Your task to perform on an android device: change your default location settings in chrome Image 0: 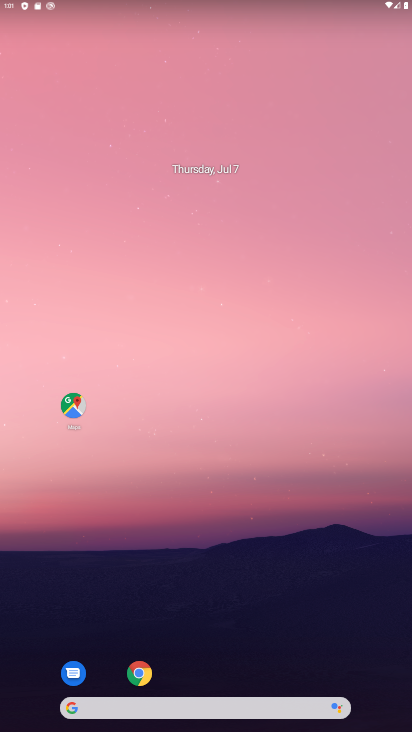
Step 0: drag from (253, 613) to (222, 39)
Your task to perform on an android device: change your default location settings in chrome Image 1: 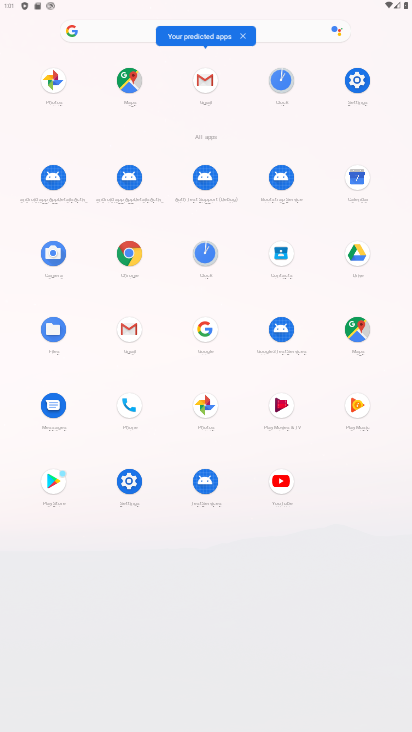
Step 1: click (131, 252)
Your task to perform on an android device: change your default location settings in chrome Image 2: 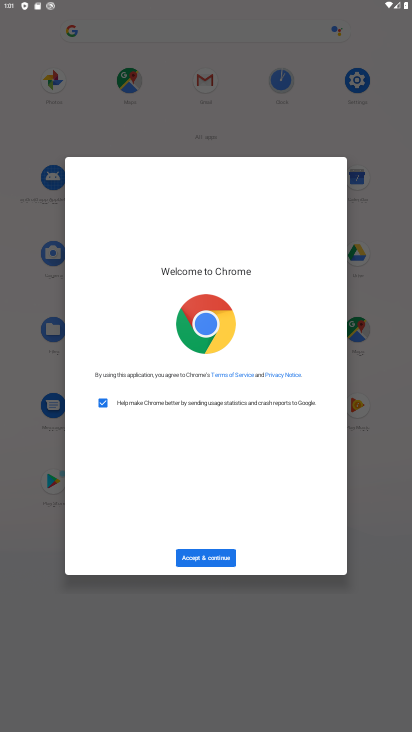
Step 2: click (221, 556)
Your task to perform on an android device: change your default location settings in chrome Image 3: 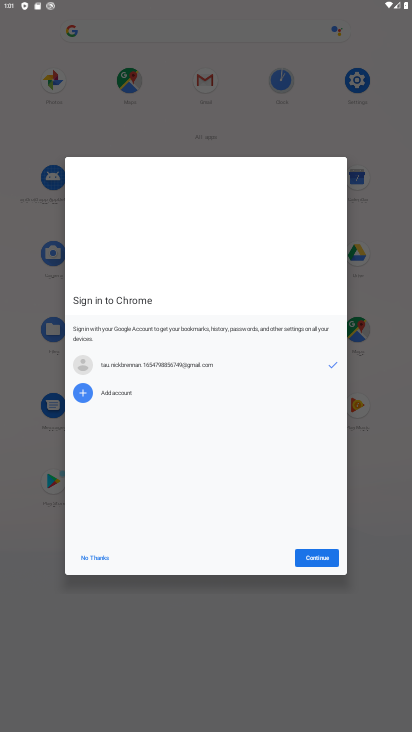
Step 3: click (314, 563)
Your task to perform on an android device: change your default location settings in chrome Image 4: 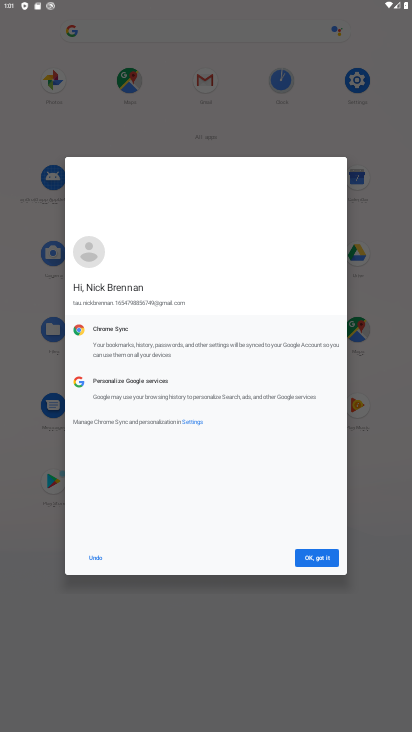
Step 4: click (332, 563)
Your task to perform on an android device: change your default location settings in chrome Image 5: 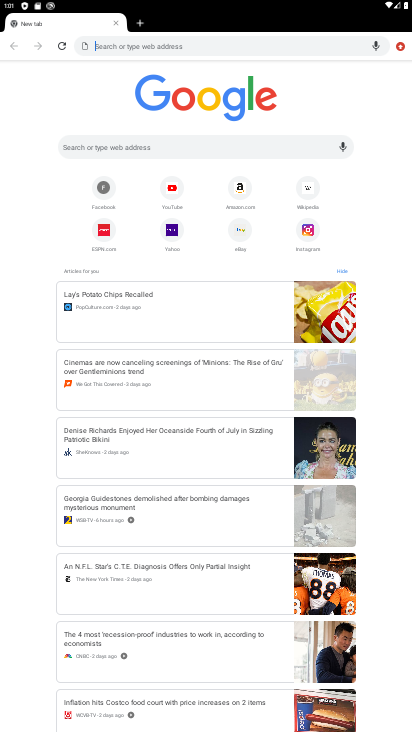
Step 5: click (399, 51)
Your task to perform on an android device: change your default location settings in chrome Image 6: 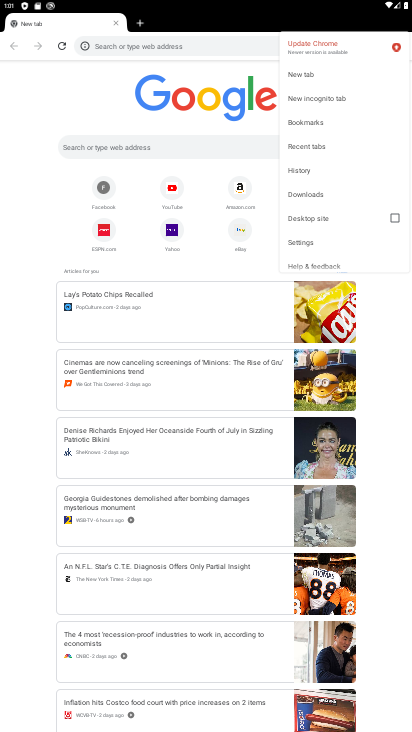
Step 6: click (335, 238)
Your task to perform on an android device: change your default location settings in chrome Image 7: 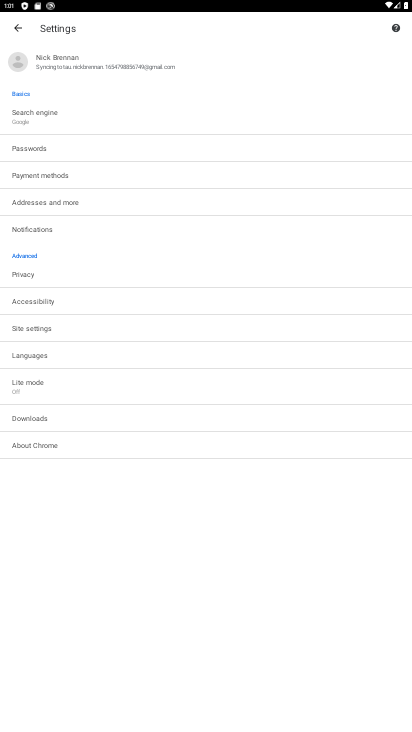
Step 7: click (84, 327)
Your task to perform on an android device: change your default location settings in chrome Image 8: 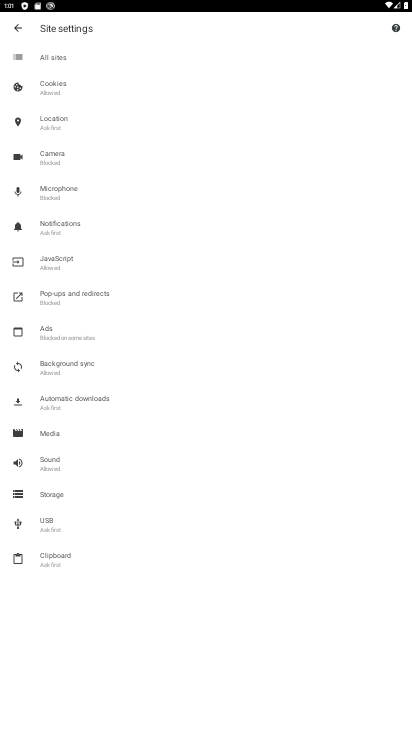
Step 8: click (92, 118)
Your task to perform on an android device: change your default location settings in chrome Image 9: 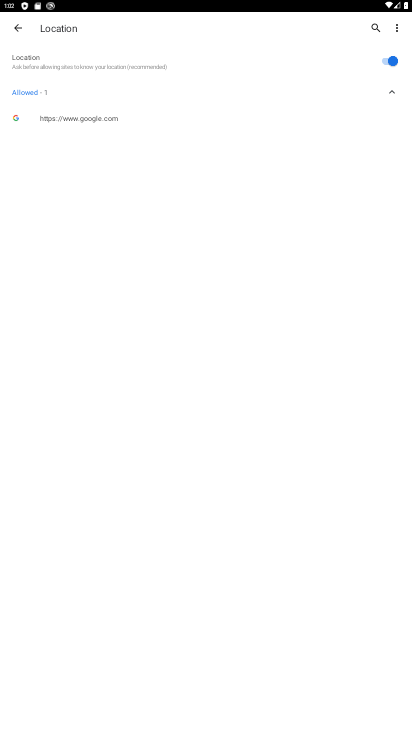
Step 9: click (397, 37)
Your task to perform on an android device: change your default location settings in chrome Image 10: 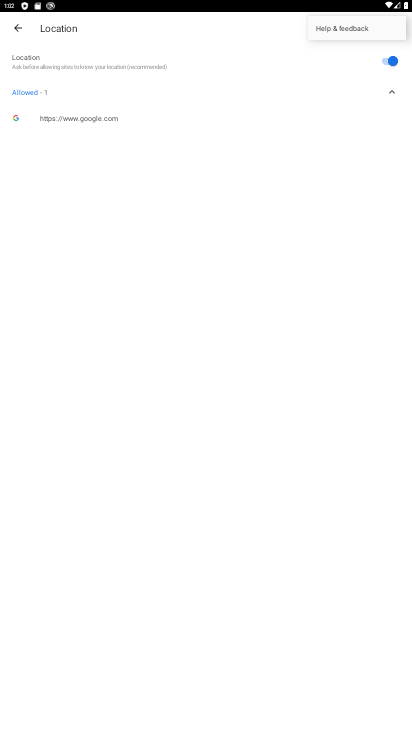
Step 10: click (387, 196)
Your task to perform on an android device: change your default location settings in chrome Image 11: 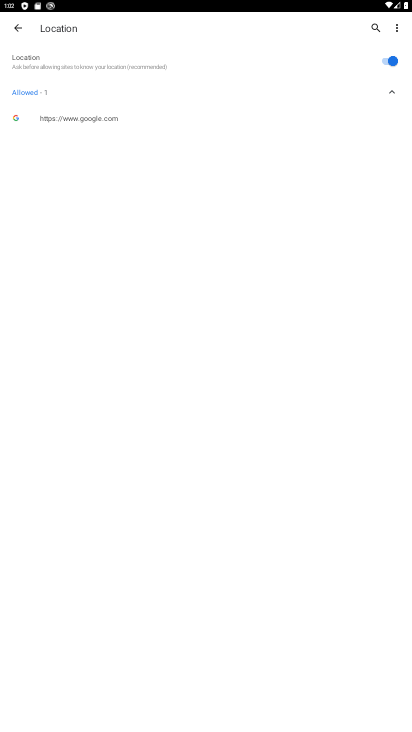
Step 11: task complete